Your task to perform on an android device: What's the weather today? Image 0: 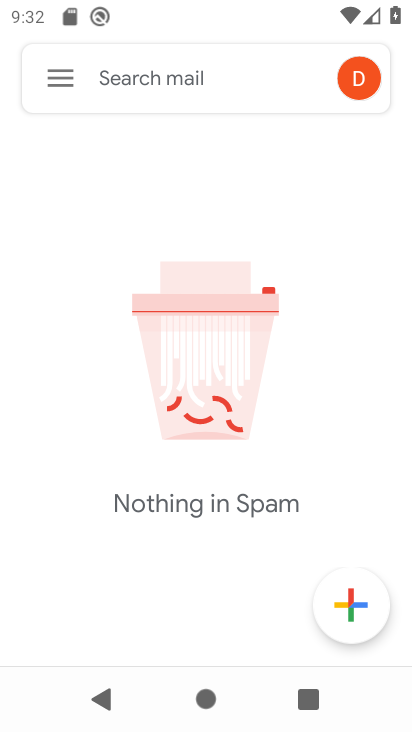
Step 0: press home button
Your task to perform on an android device: What's the weather today? Image 1: 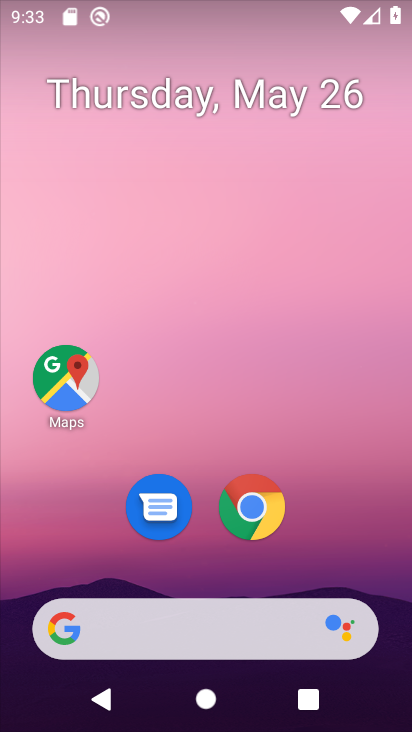
Step 1: click (236, 618)
Your task to perform on an android device: What's the weather today? Image 2: 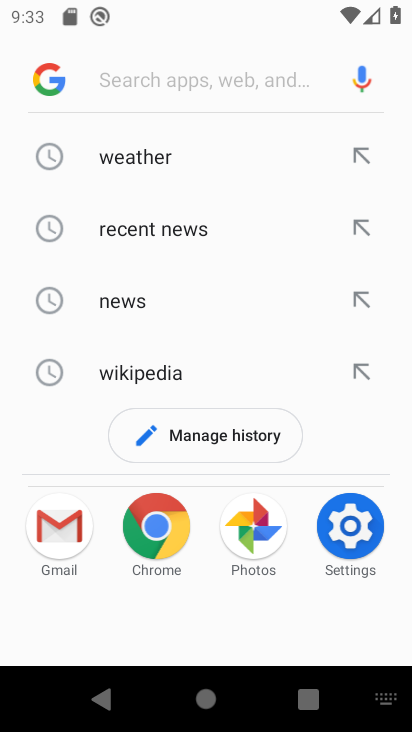
Step 2: click (173, 160)
Your task to perform on an android device: What's the weather today? Image 3: 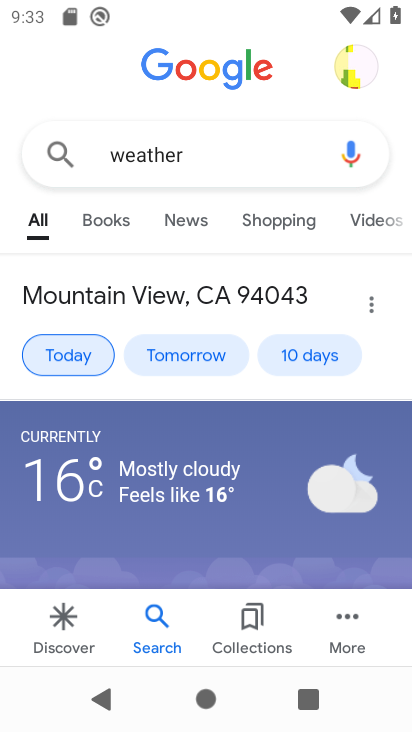
Step 3: click (78, 360)
Your task to perform on an android device: What's the weather today? Image 4: 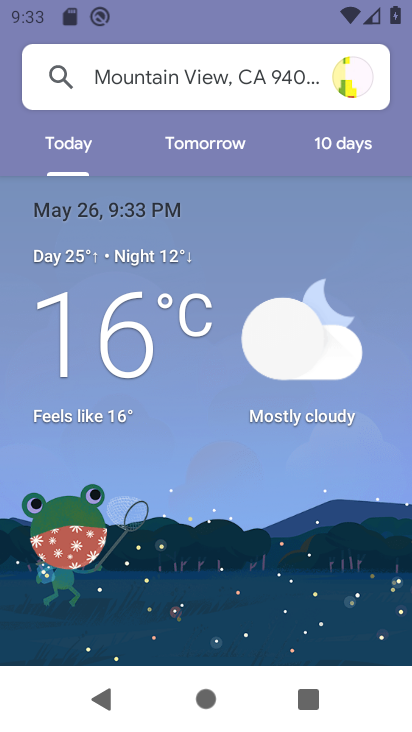
Step 4: task complete